Your task to perform on an android device: Go to network settings Image 0: 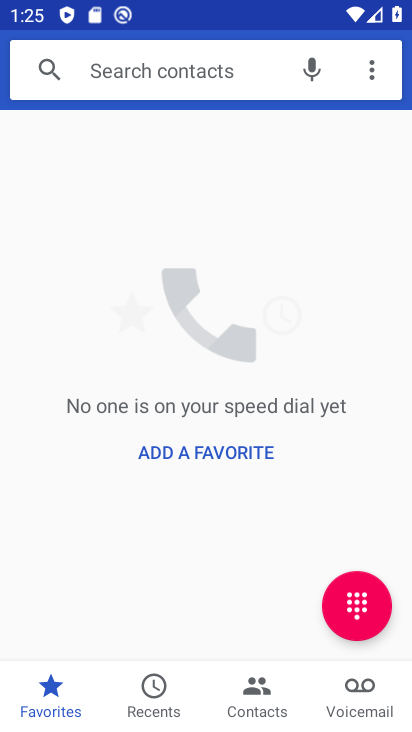
Step 0: press back button
Your task to perform on an android device: Go to network settings Image 1: 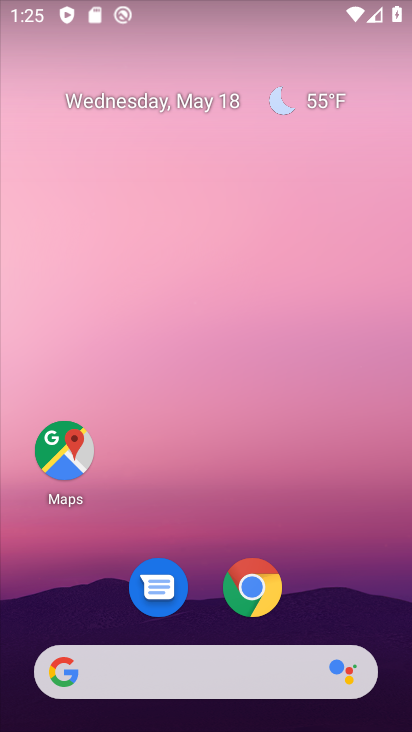
Step 1: drag from (181, 544) to (250, 43)
Your task to perform on an android device: Go to network settings Image 2: 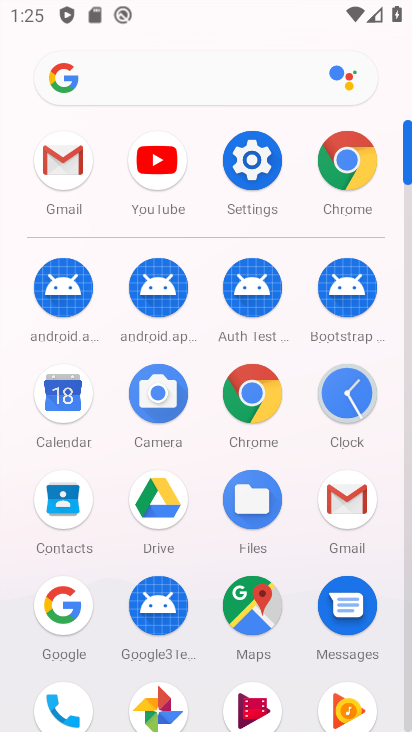
Step 2: click (258, 161)
Your task to perform on an android device: Go to network settings Image 3: 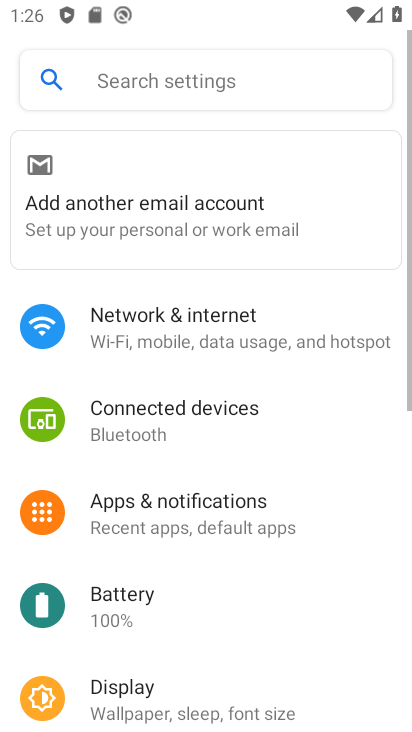
Step 3: drag from (209, 176) to (208, 26)
Your task to perform on an android device: Go to network settings Image 4: 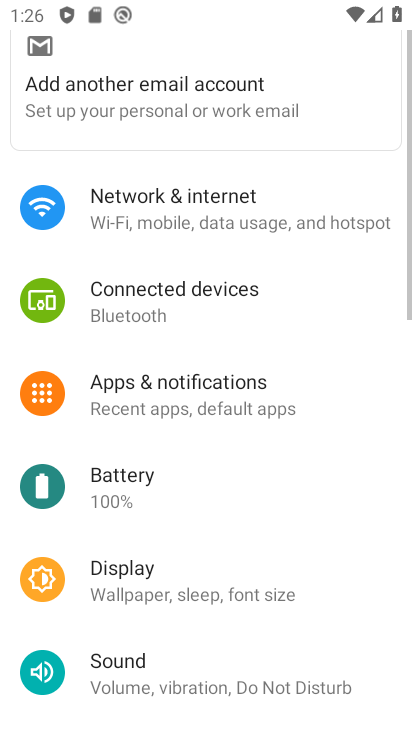
Step 4: click (129, 186)
Your task to perform on an android device: Go to network settings Image 5: 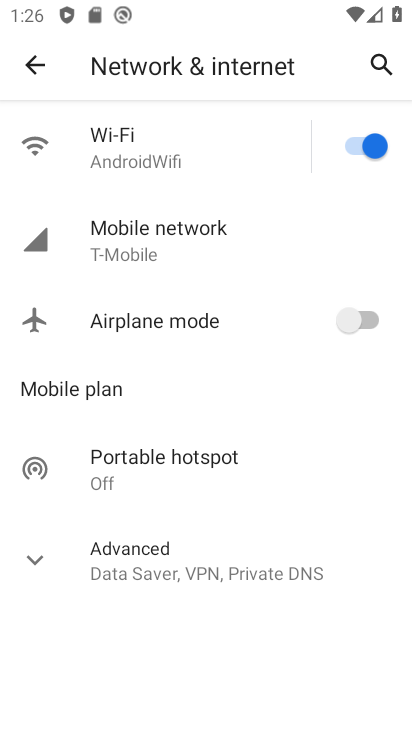
Step 5: task complete